Your task to perform on an android device: Open ESPN.com Image 0: 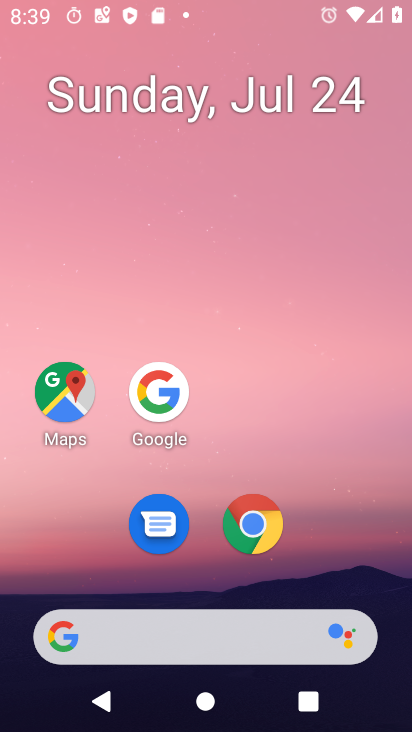
Step 0: press home button
Your task to perform on an android device: Open ESPN.com Image 1: 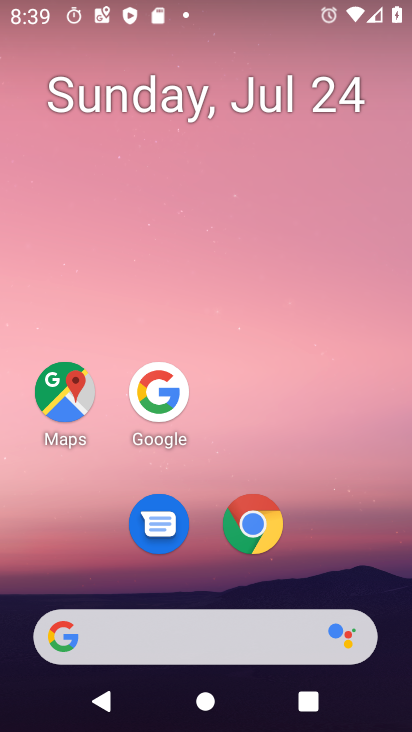
Step 1: click (252, 521)
Your task to perform on an android device: Open ESPN.com Image 2: 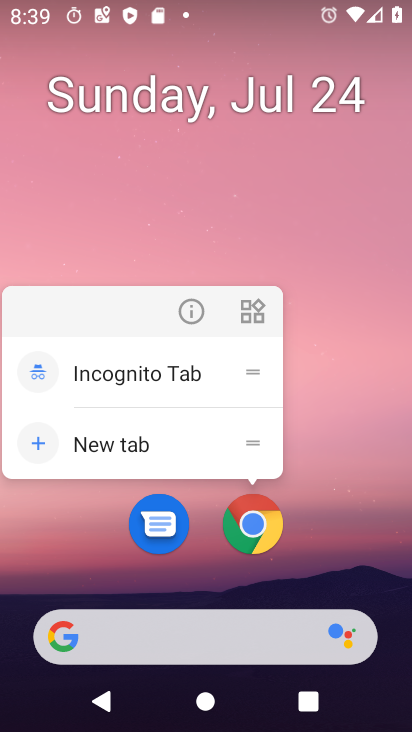
Step 2: click (266, 531)
Your task to perform on an android device: Open ESPN.com Image 3: 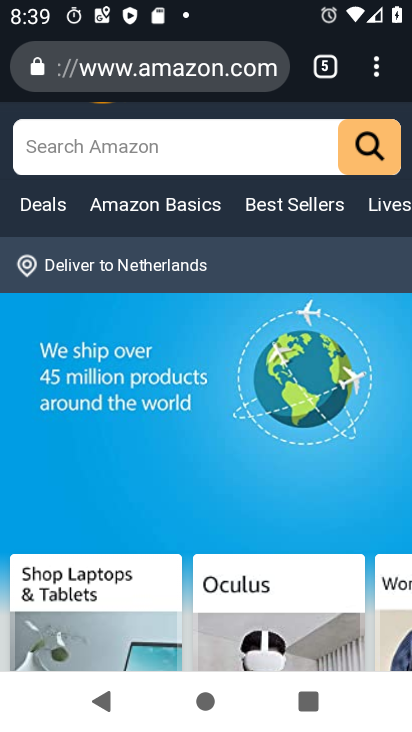
Step 3: click (266, 531)
Your task to perform on an android device: Open ESPN.com Image 4: 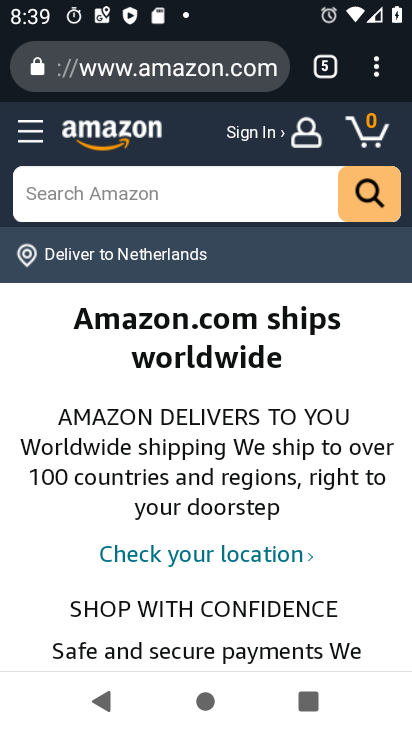
Step 4: drag from (374, 72) to (186, 132)
Your task to perform on an android device: Open ESPN.com Image 5: 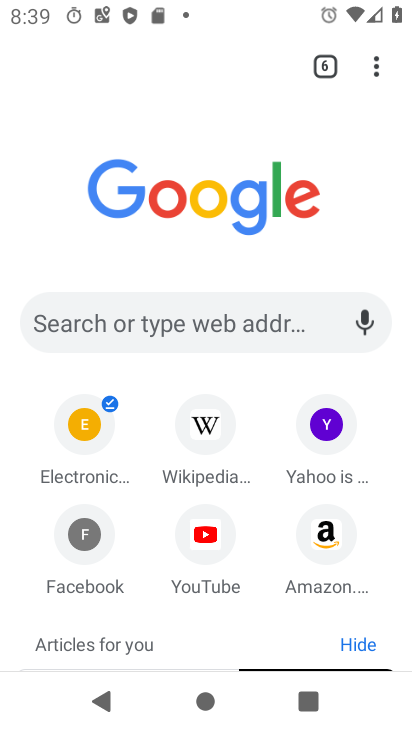
Step 5: drag from (190, 595) to (307, 352)
Your task to perform on an android device: Open ESPN.com Image 6: 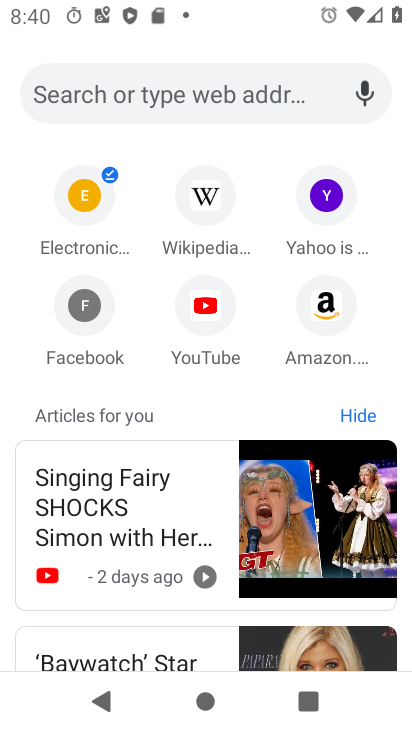
Step 6: drag from (280, 297) to (195, 575)
Your task to perform on an android device: Open ESPN.com Image 7: 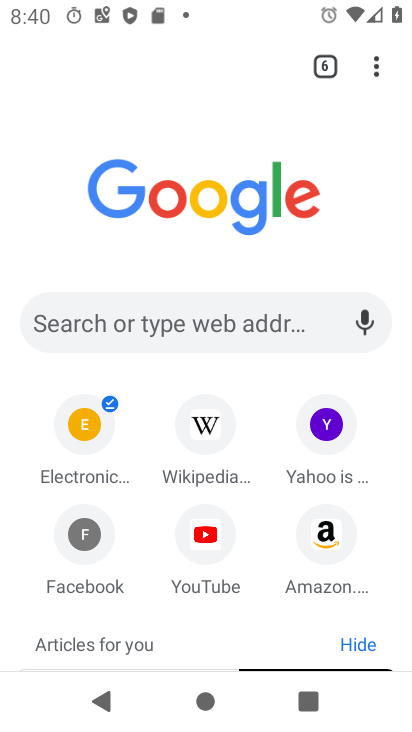
Step 7: click (168, 305)
Your task to perform on an android device: Open ESPN.com Image 8: 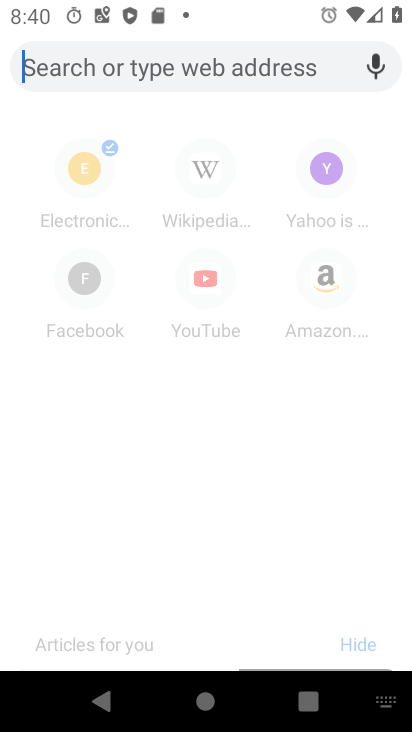
Step 8: type "ESPN.com"
Your task to perform on an android device: Open ESPN.com Image 9: 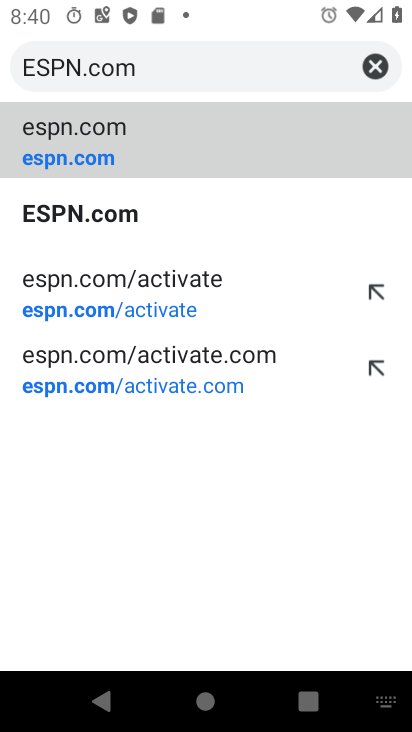
Step 9: click (109, 142)
Your task to perform on an android device: Open ESPN.com Image 10: 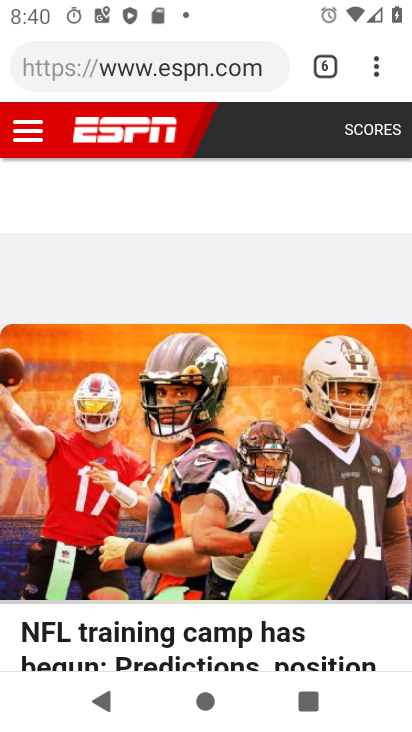
Step 10: task complete